Your task to perform on an android device: Open accessibility settings Image 0: 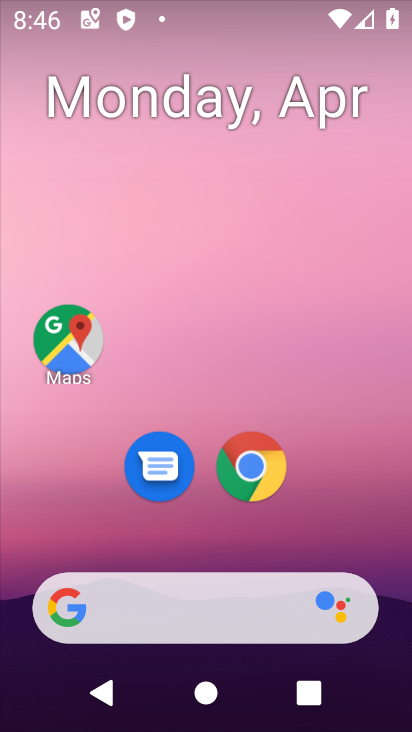
Step 0: drag from (232, 549) to (281, 74)
Your task to perform on an android device: Open accessibility settings Image 1: 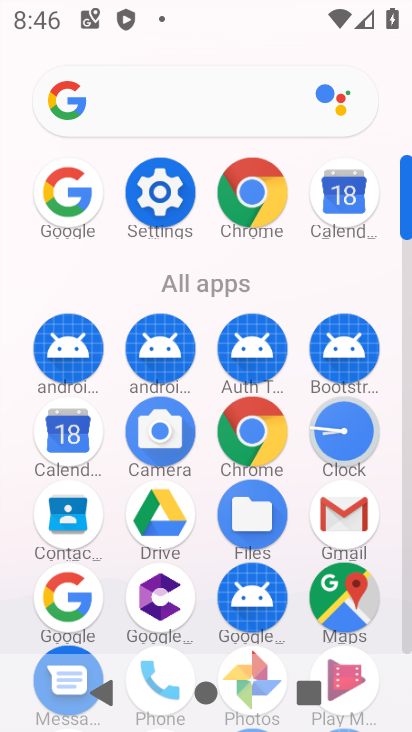
Step 1: click (165, 185)
Your task to perform on an android device: Open accessibility settings Image 2: 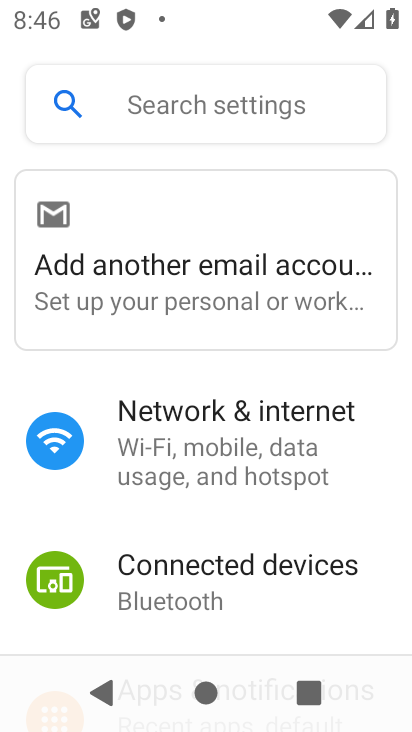
Step 2: drag from (111, 511) to (174, 351)
Your task to perform on an android device: Open accessibility settings Image 3: 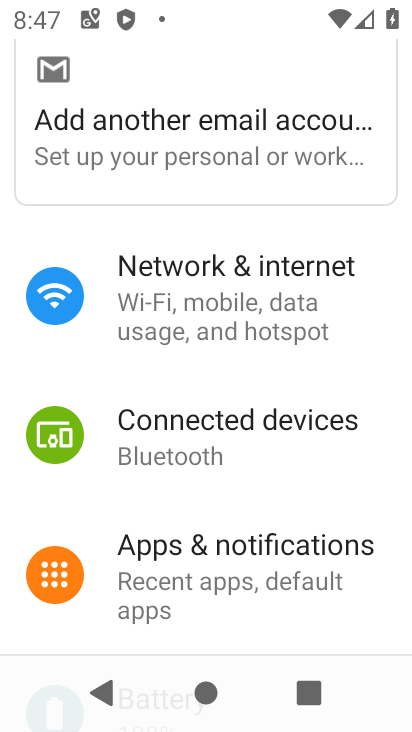
Step 3: drag from (175, 513) to (222, 398)
Your task to perform on an android device: Open accessibility settings Image 4: 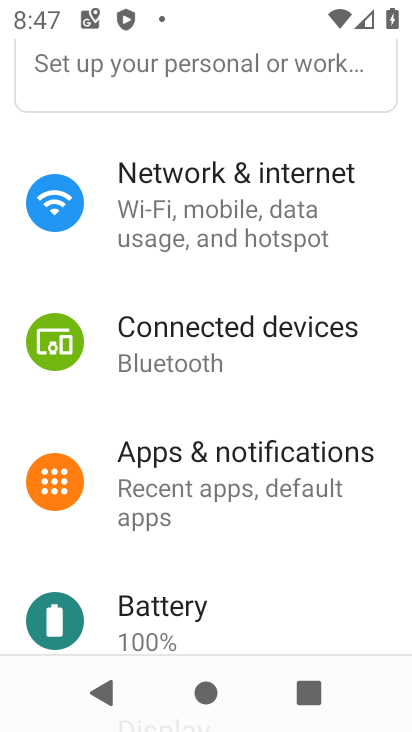
Step 4: drag from (185, 538) to (254, 399)
Your task to perform on an android device: Open accessibility settings Image 5: 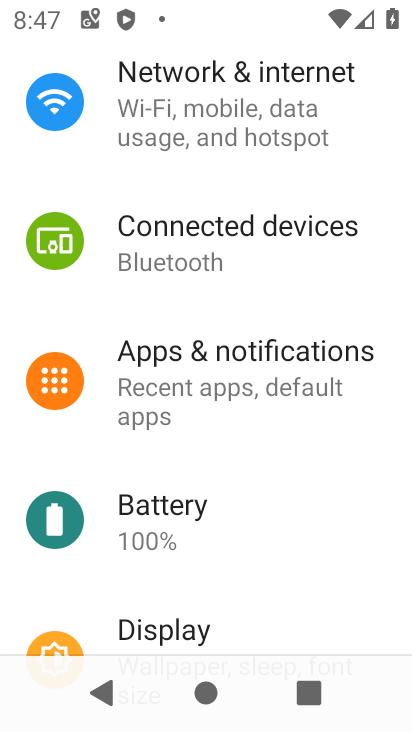
Step 5: drag from (189, 559) to (262, 404)
Your task to perform on an android device: Open accessibility settings Image 6: 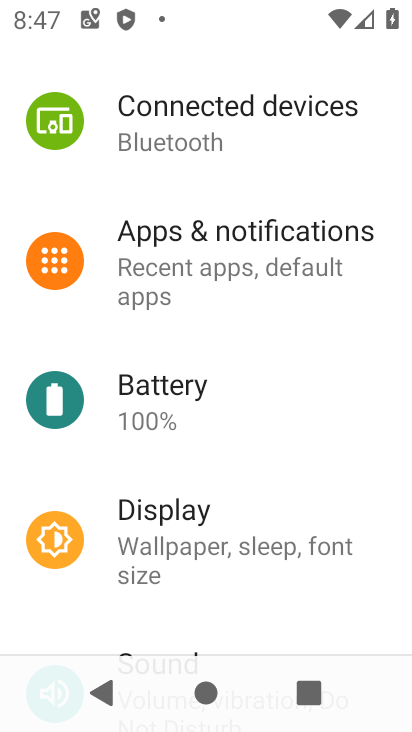
Step 6: drag from (232, 519) to (268, 436)
Your task to perform on an android device: Open accessibility settings Image 7: 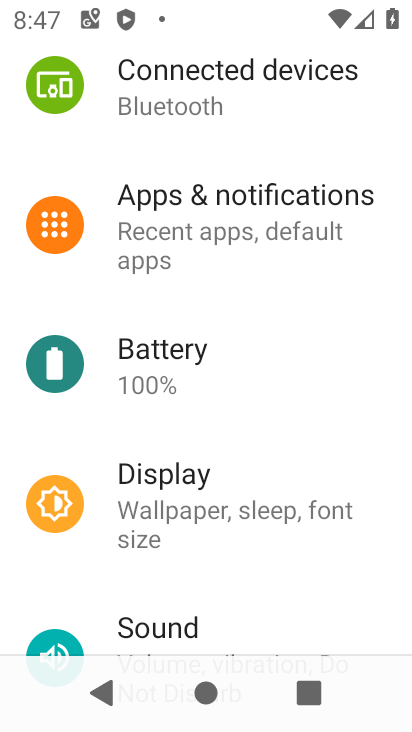
Step 7: drag from (239, 486) to (264, 435)
Your task to perform on an android device: Open accessibility settings Image 8: 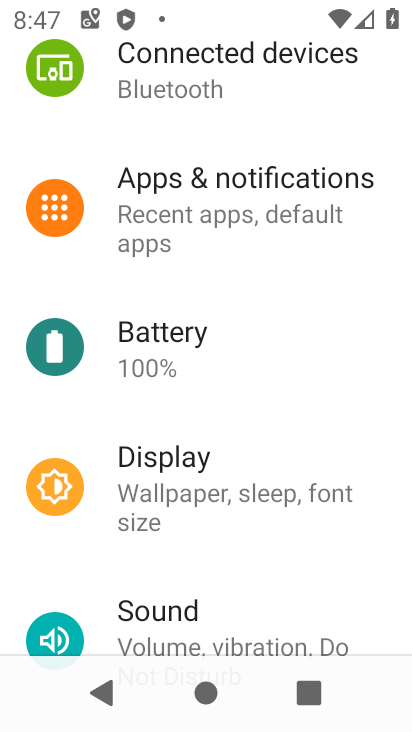
Step 8: drag from (210, 579) to (264, 427)
Your task to perform on an android device: Open accessibility settings Image 9: 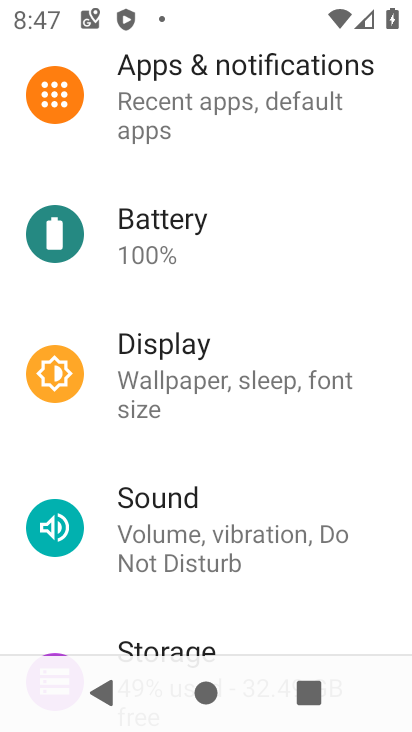
Step 9: drag from (221, 495) to (286, 336)
Your task to perform on an android device: Open accessibility settings Image 10: 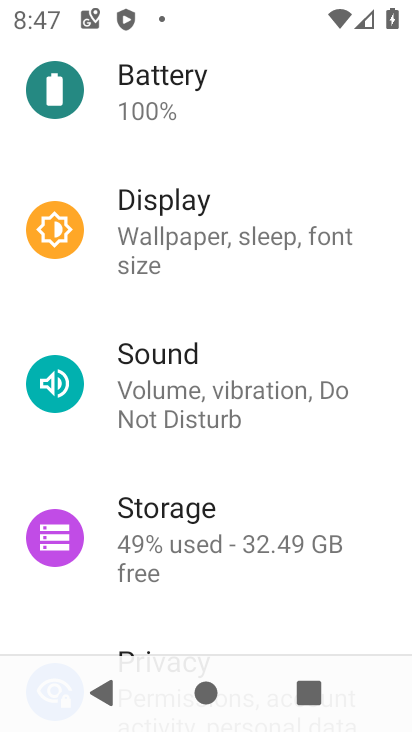
Step 10: drag from (214, 490) to (270, 366)
Your task to perform on an android device: Open accessibility settings Image 11: 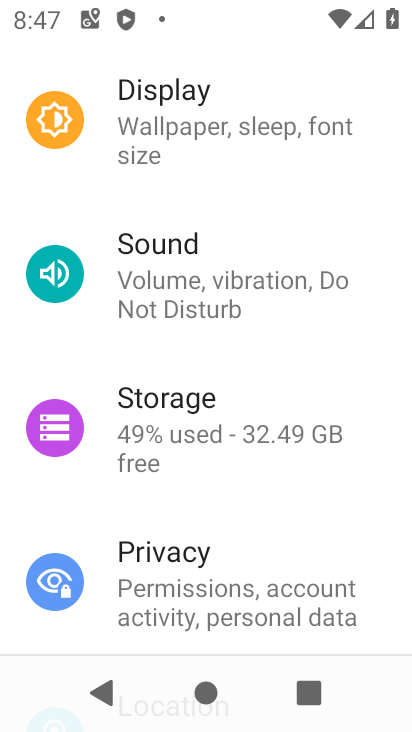
Step 11: drag from (202, 524) to (265, 376)
Your task to perform on an android device: Open accessibility settings Image 12: 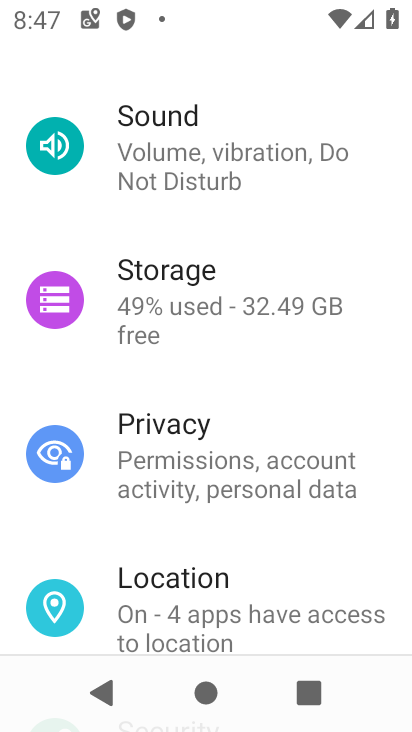
Step 12: drag from (160, 537) to (258, 369)
Your task to perform on an android device: Open accessibility settings Image 13: 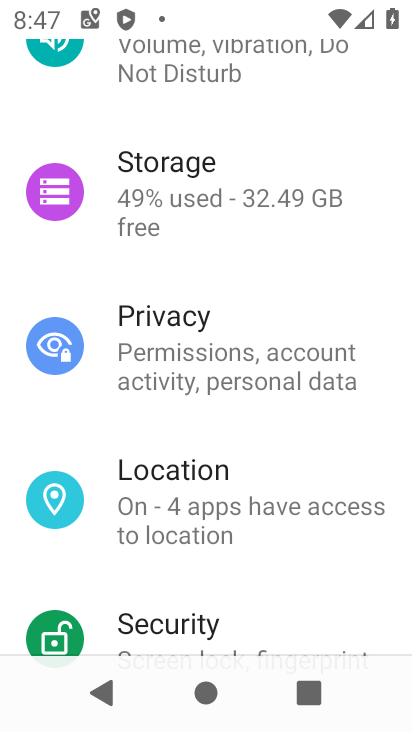
Step 13: drag from (233, 420) to (254, 390)
Your task to perform on an android device: Open accessibility settings Image 14: 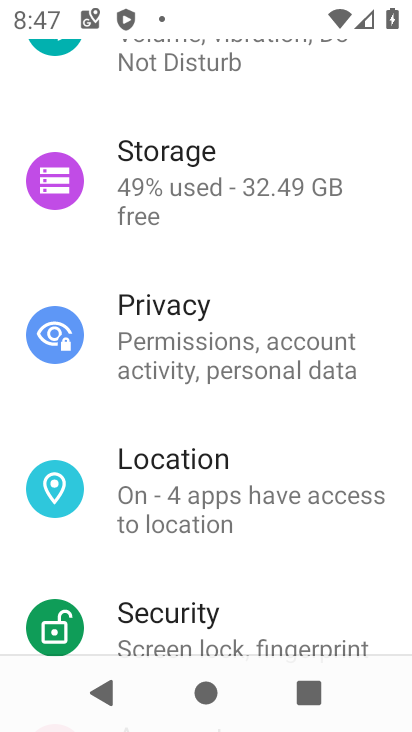
Step 14: drag from (150, 555) to (240, 368)
Your task to perform on an android device: Open accessibility settings Image 15: 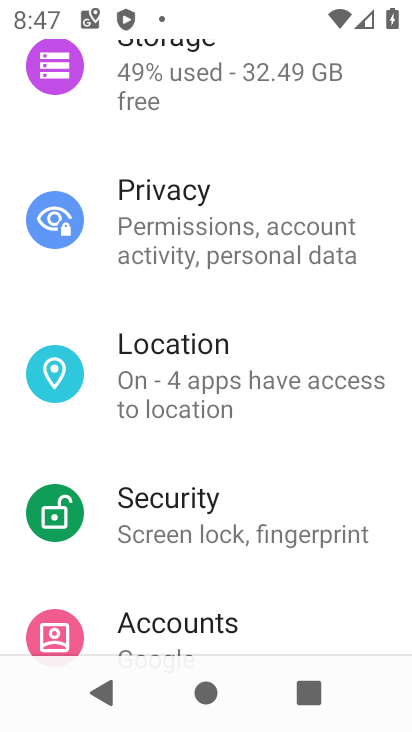
Step 15: drag from (163, 580) to (247, 418)
Your task to perform on an android device: Open accessibility settings Image 16: 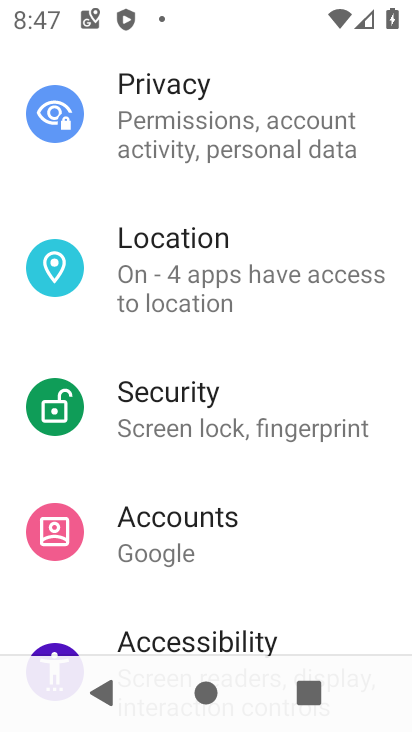
Step 16: drag from (164, 600) to (277, 420)
Your task to perform on an android device: Open accessibility settings Image 17: 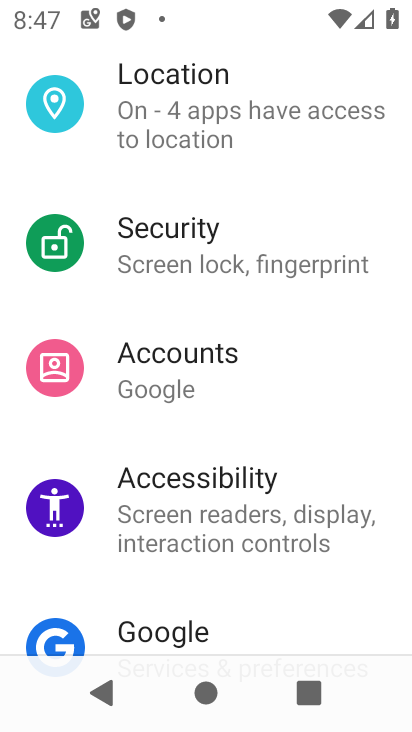
Step 17: click (243, 472)
Your task to perform on an android device: Open accessibility settings Image 18: 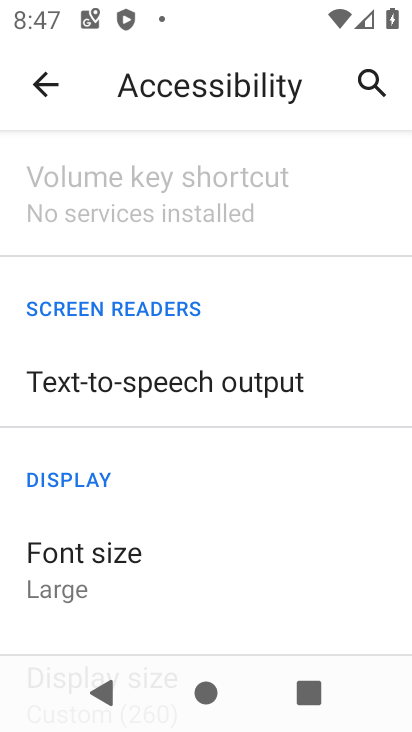
Step 18: task complete